Your task to perform on an android device: check google app version Image 0: 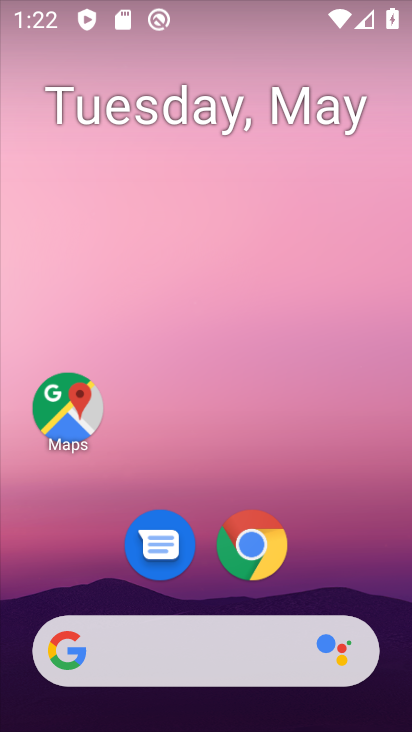
Step 0: drag from (356, 546) to (351, 134)
Your task to perform on an android device: check google app version Image 1: 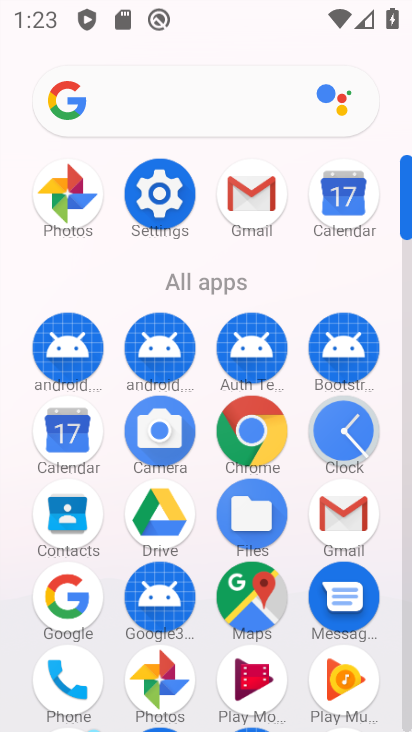
Step 1: click (80, 617)
Your task to perform on an android device: check google app version Image 2: 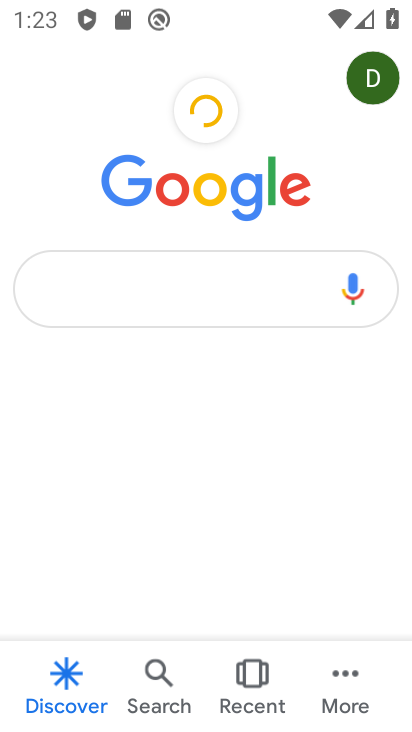
Step 2: click (343, 690)
Your task to perform on an android device: check google app version Image 3: 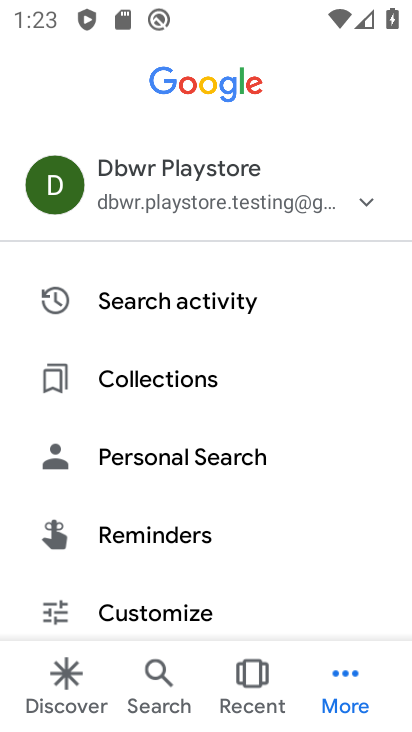
Step 3: drag from (342, 579) to (348, 387)
Your task to perform on an android device: check google app version Image 4: 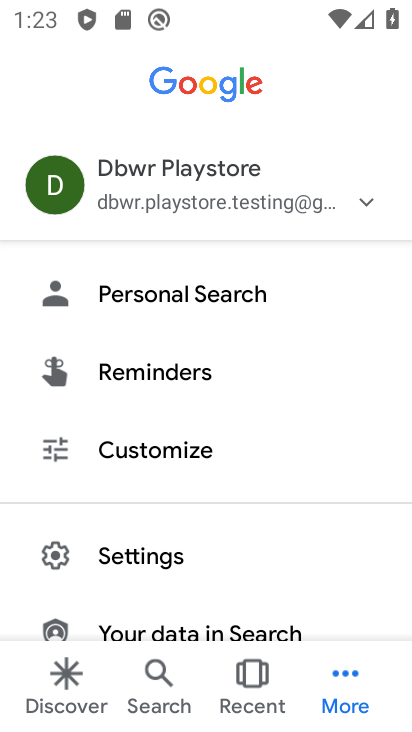
Step 4: drag from (310, 558) to (314, 464)
Your task to perform on an android device: check google app version Image 5: 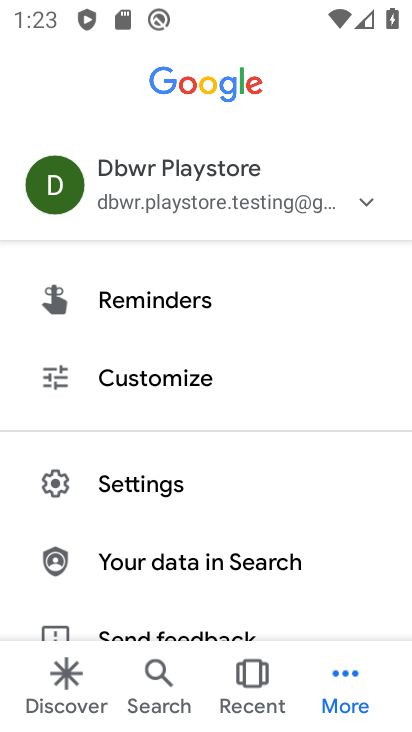
Step 5: click (221, 502)
Your task to perform on an android device: check google app version Image 6: 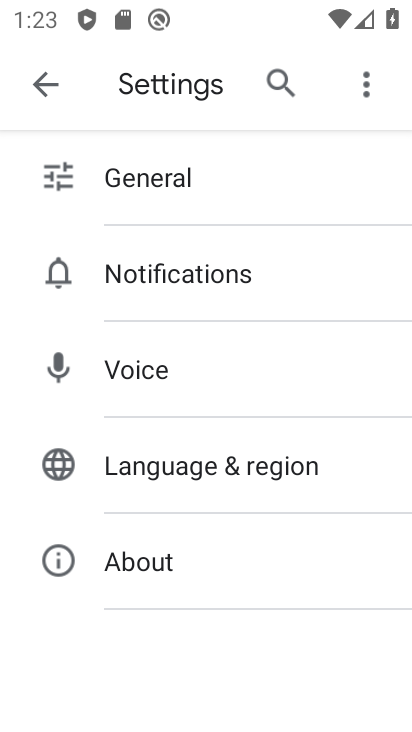
Step 6: click (197, 574)
Your task to perform on an android device: check google app version Image 7: 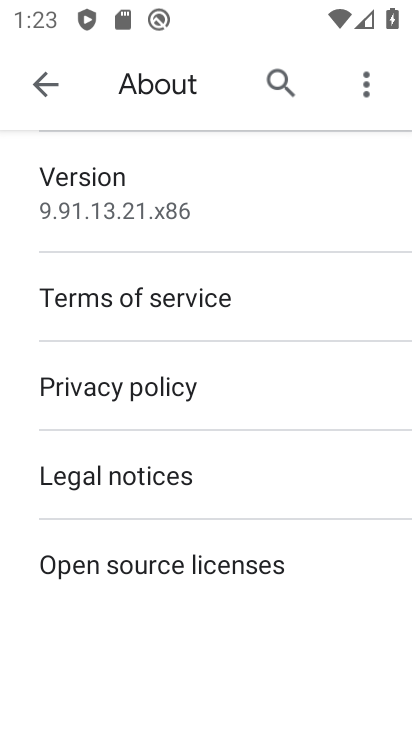
Step 7: task complete